Your task to perform on an android device: open a new tab in the chrome app Image 0: 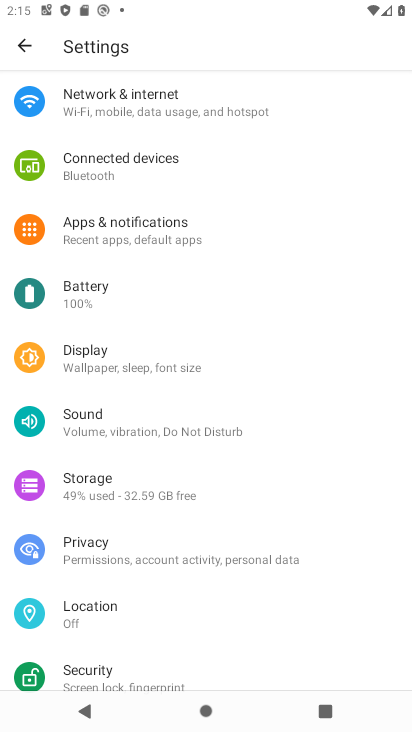
Step 0: press home button
Your task to perform on an android device: open a new tab in the chrome app Image 1: 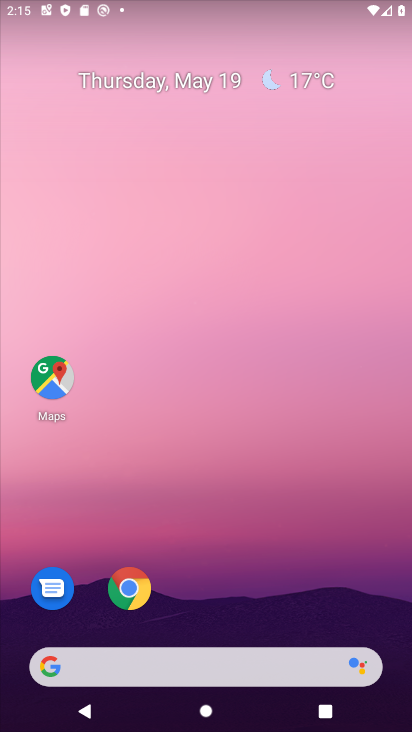
Step 1: click (132, 581)
Your task to perform on an android device: open a new tab in the chrome app Image 2: 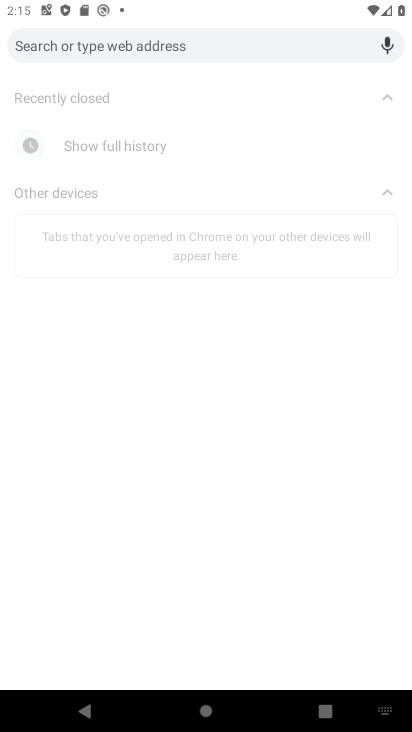
Step 2: task complete